Your task to perform on an android device: turn off location Image 0: 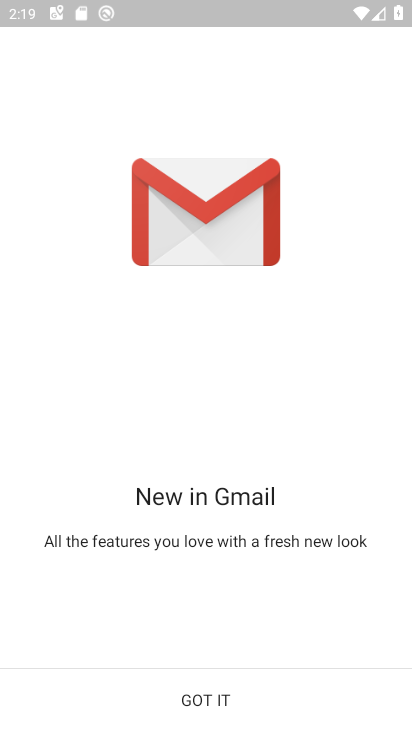
Step 0: press home button
Your task to perform on an android device: turn off location Image 1: 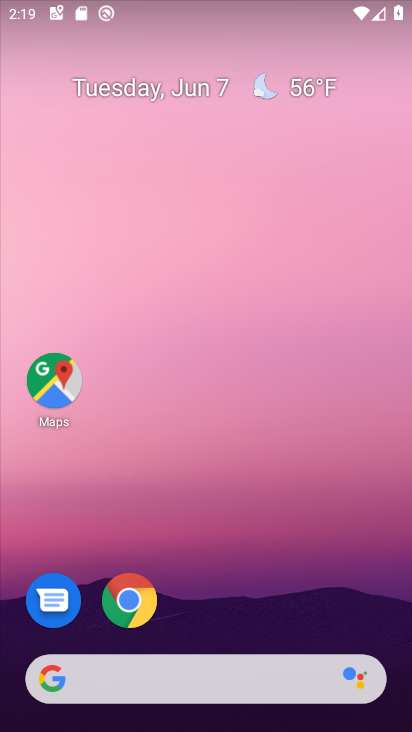
Step 1: drag from (277, 609) to (323, 0)
Your task to perform on an android device: turn off location Image 2: 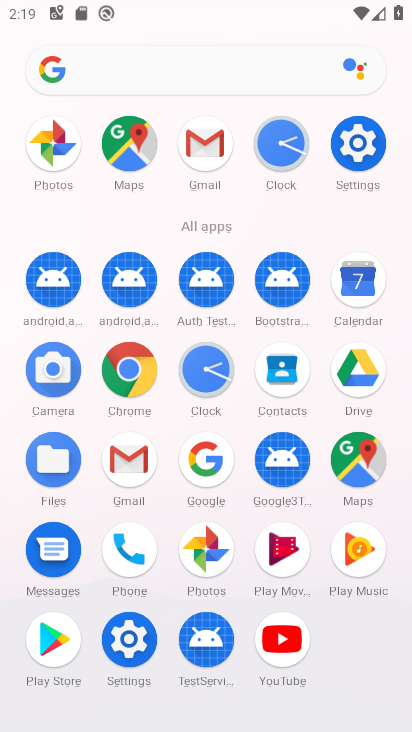
Step 2: click (367, 173)
Your task to perform on an android device: turn off location Image 3: 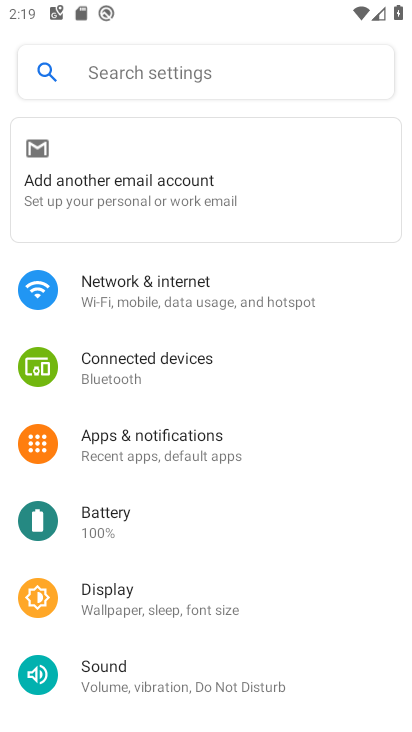
Step 3: drag from (195, 586) to (211, 378)
Your task to perform on an android device: turn off location Image 4: 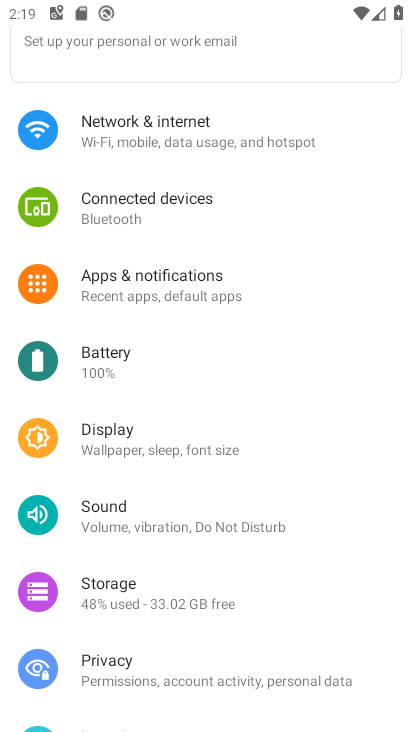
Step 4: drag from (170, 495) to (188, 211)
Your task to perform on an android device: turn off location Image 5: 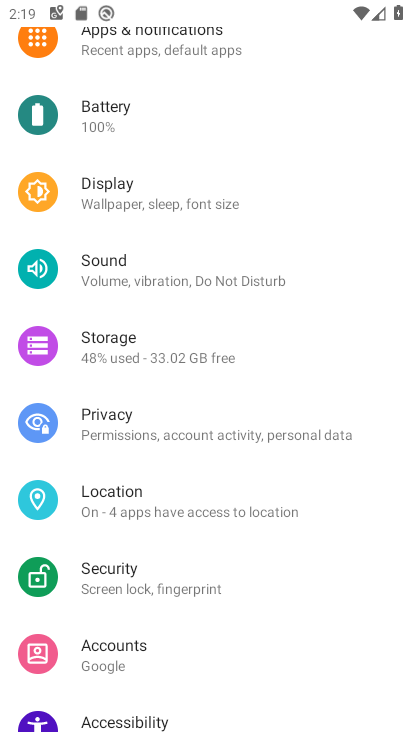
Step 5: click (185, 516)
Your task to perform on an android device: turn off location Image 6: 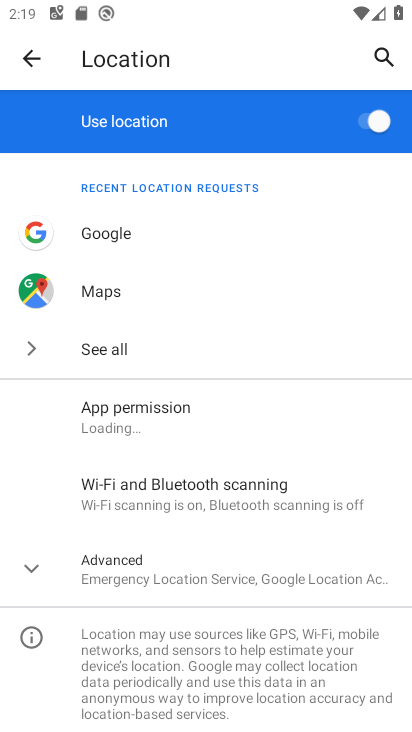
Step 6: click (349, 117)
Your task to perform on an android device: turn off location Image 7: 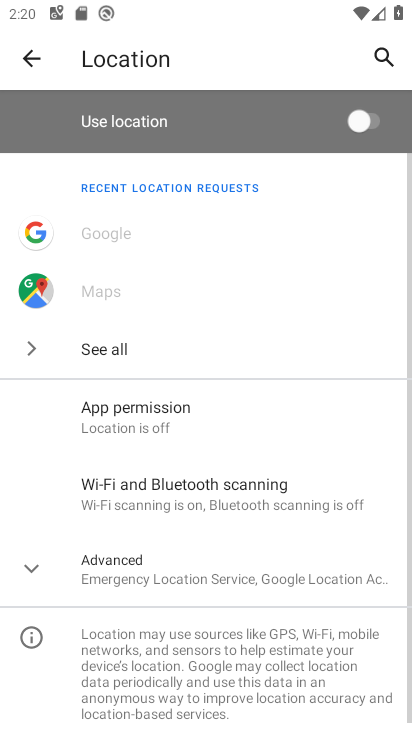
Step 7: task complete